Your task to perform on an android device: turn vacation reply on in the gmail app Image 0: 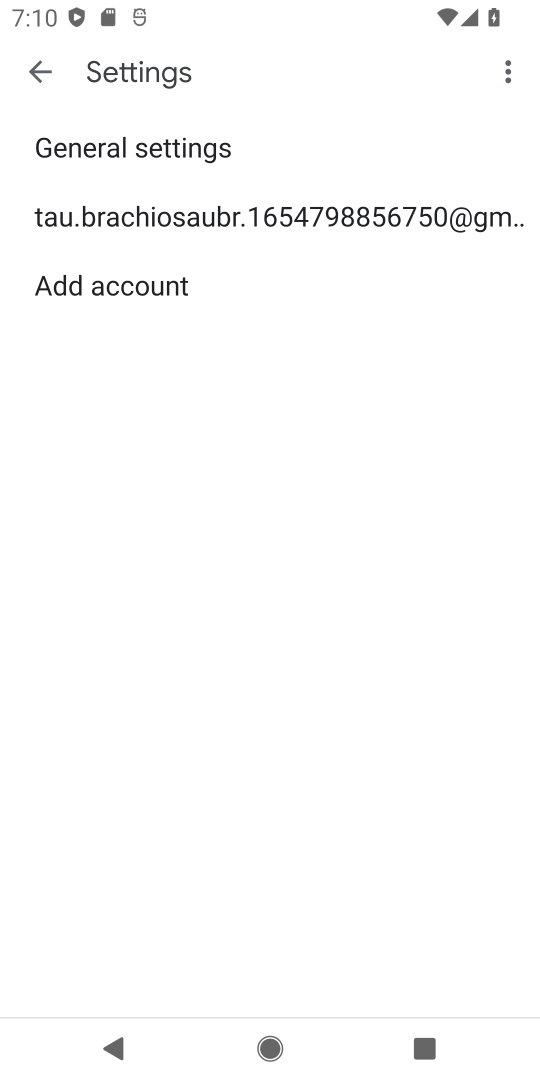
Step 0: click (134, 210)
Your task to perform on an android device: turn vacation reply on in the gmail app Image 1: 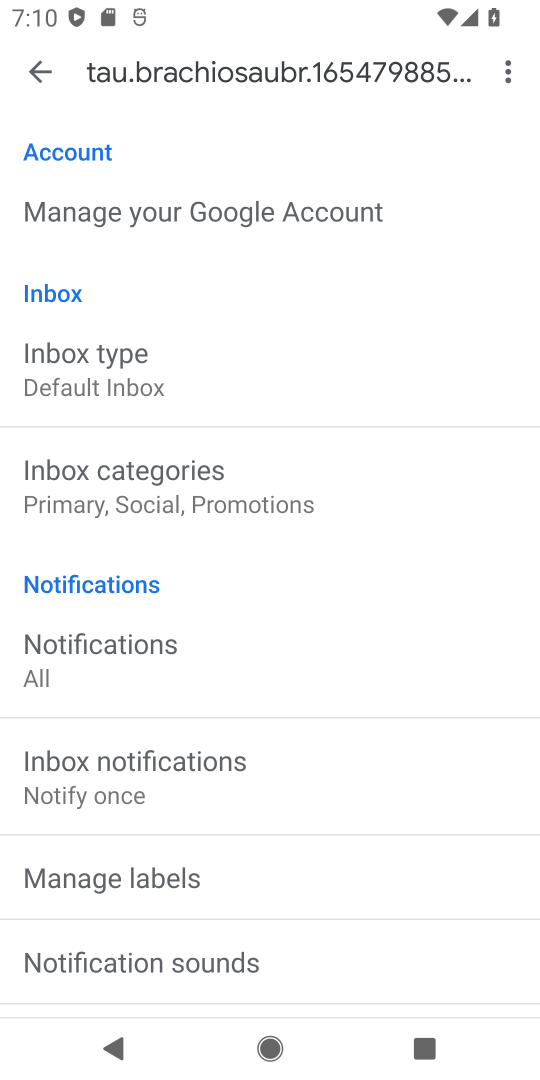
Step 1: drag from (240, 882) to (336, 0)
Your task to perform on an android device: turn vacation reply on in the gmail app Image 2: 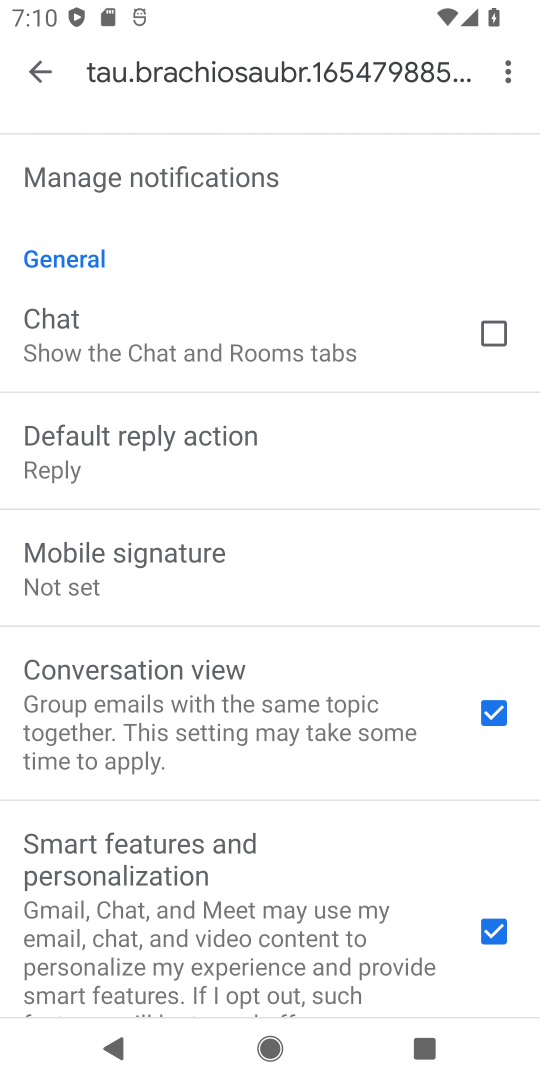
Step 2: drag from (275, 839) to (285, 198)
Your task to perform on an android device: turn vacation reply on in the gmail app Image 3: 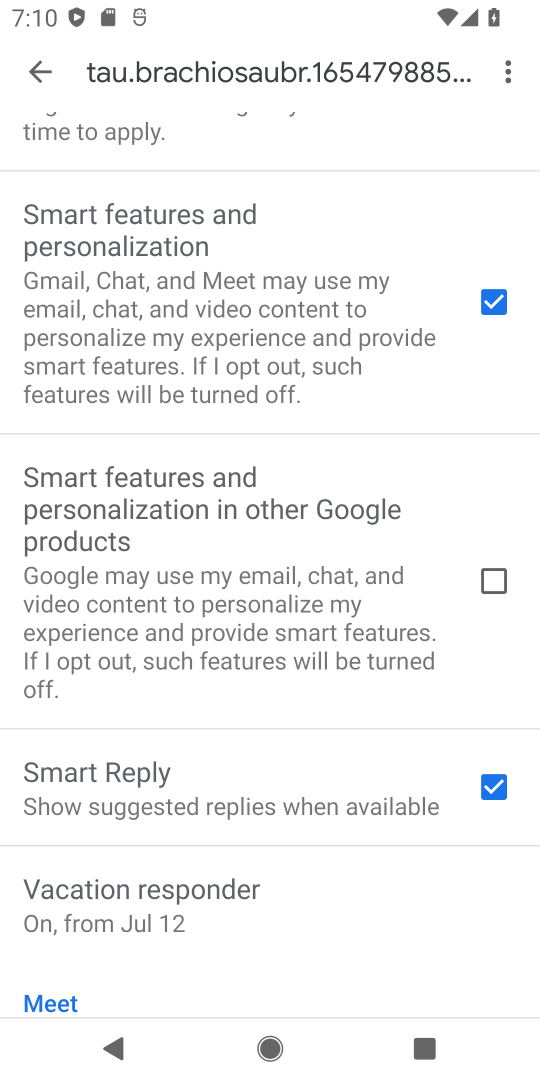
Step 3: click (239, 900)
Your task to perform on an android device: turn vacation reply on in the gmail app Image 4: 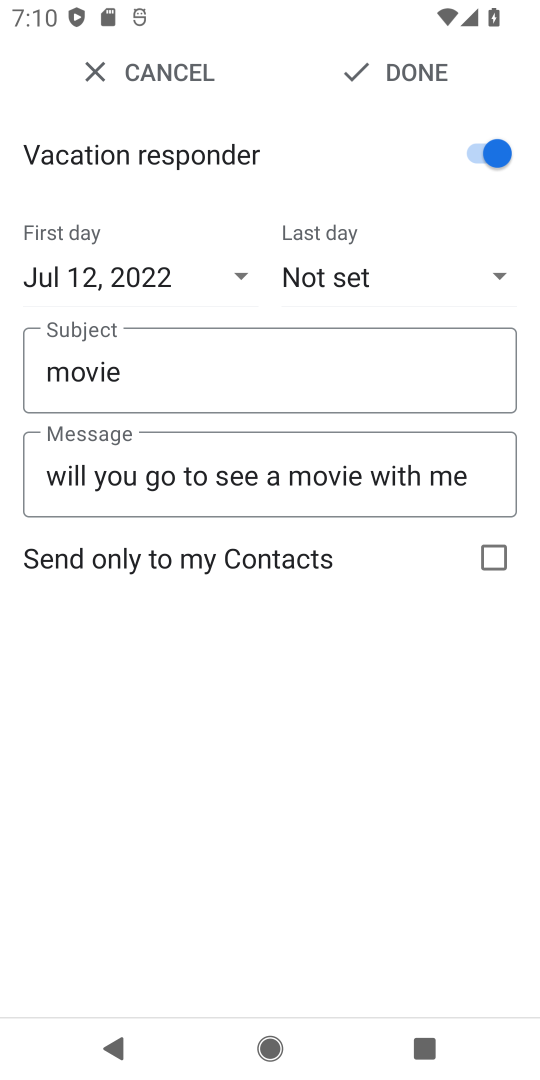
Step 4: task complete